Your task to perform on an android device: Go to notification settings Image 0: 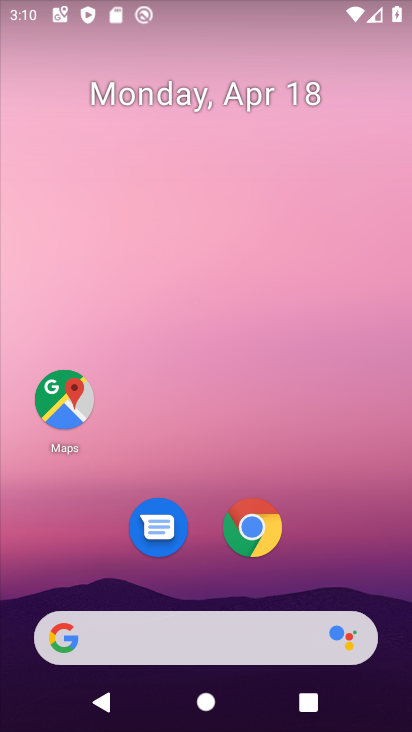
Step 0: drag from (284, 628) to (246, 27)
Your task to perform on an android device: Go to notification settings Image 1: 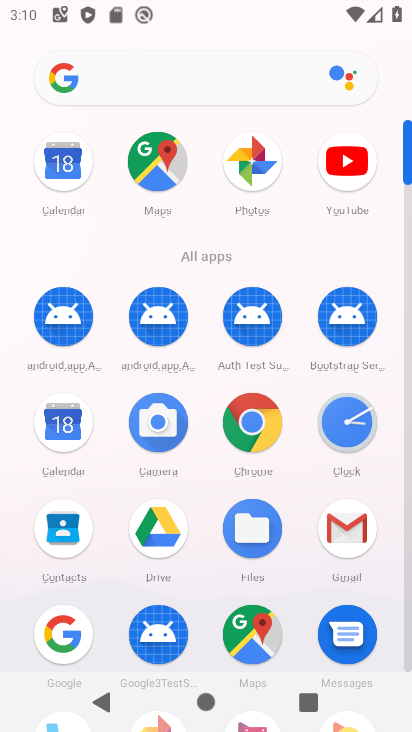
Step 1: drag from (310, 591) to (252, 91)
Your task to perform on an android device: Go to notification settings Image 2: 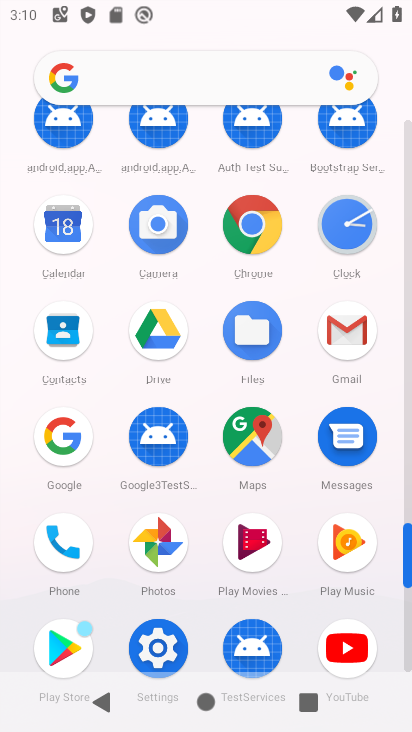
Step 2: click (158, 627)
Your task to perform on an android device: Go to notification settings Image 3: 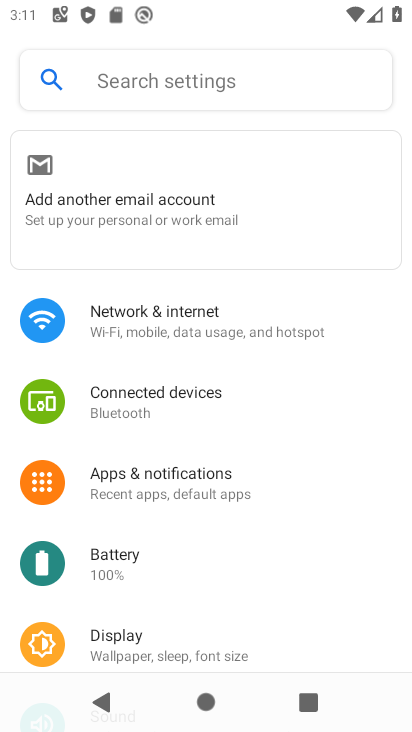
Step 3: click (150, 484)
Your task to perform on an android device: Go to notification settings Image 4: 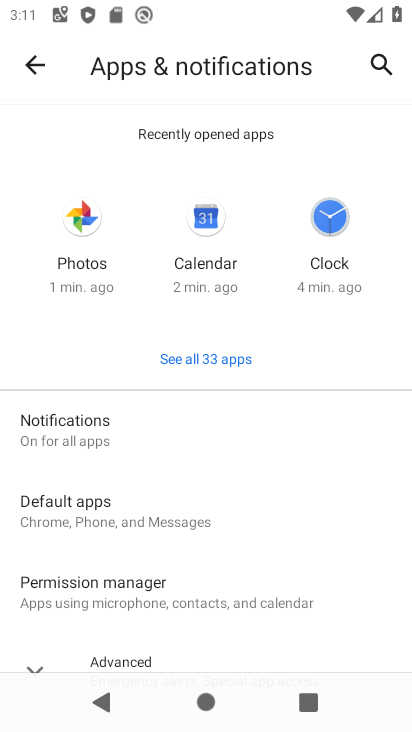
Step 4: click (98, 438)
Your task to perform on an android device: Go to notification settings Image 5: 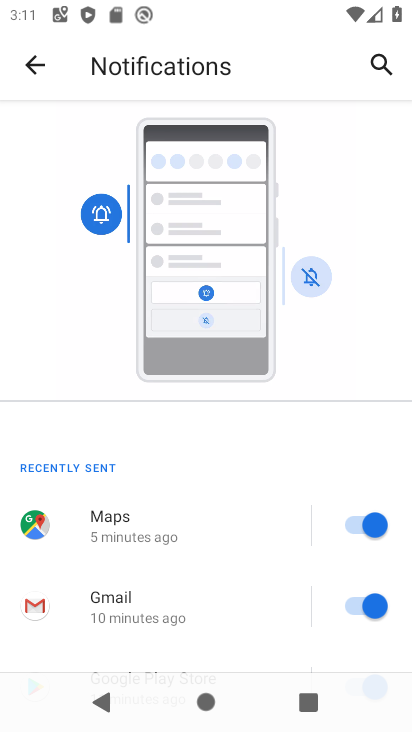
Step 5: task complete